Your task to perform on an android device: Open Google Image 0: 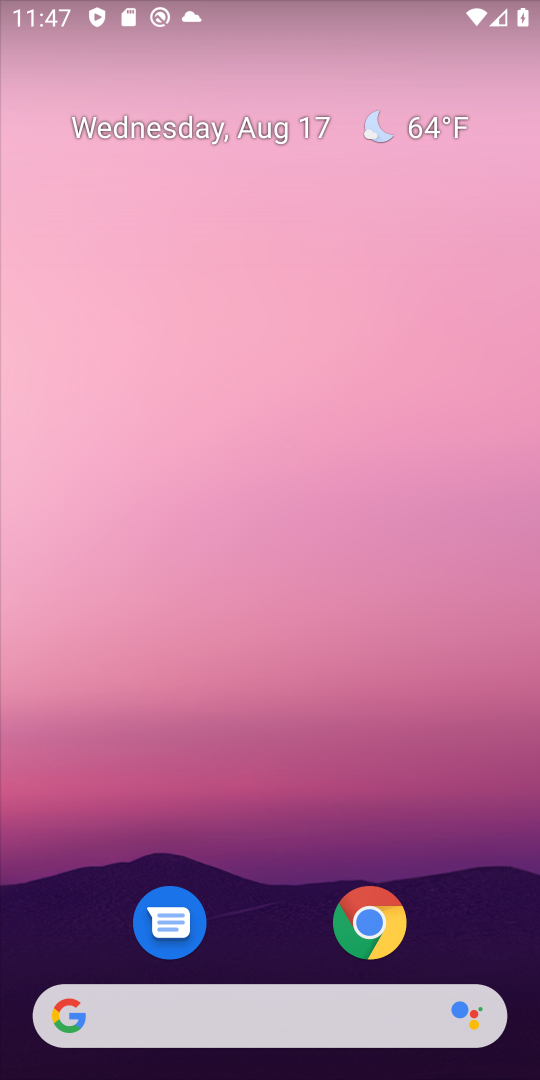
Step 0: click (60, 1010)
Your task to perform on an android device: Open Google Image 1: 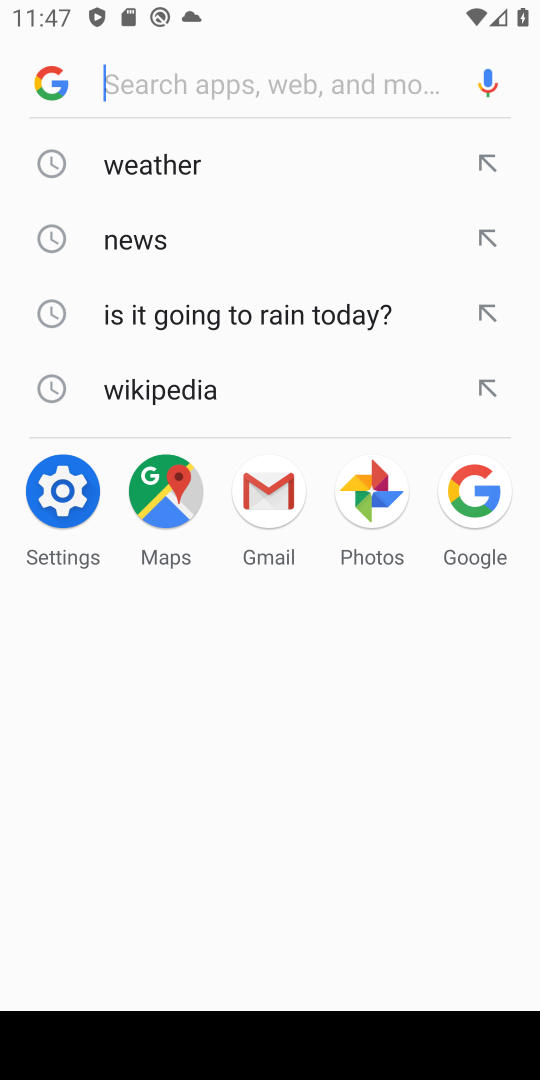
Step 1: click (53, 86)
Your task to perform on an android device: Open Google Image 2: 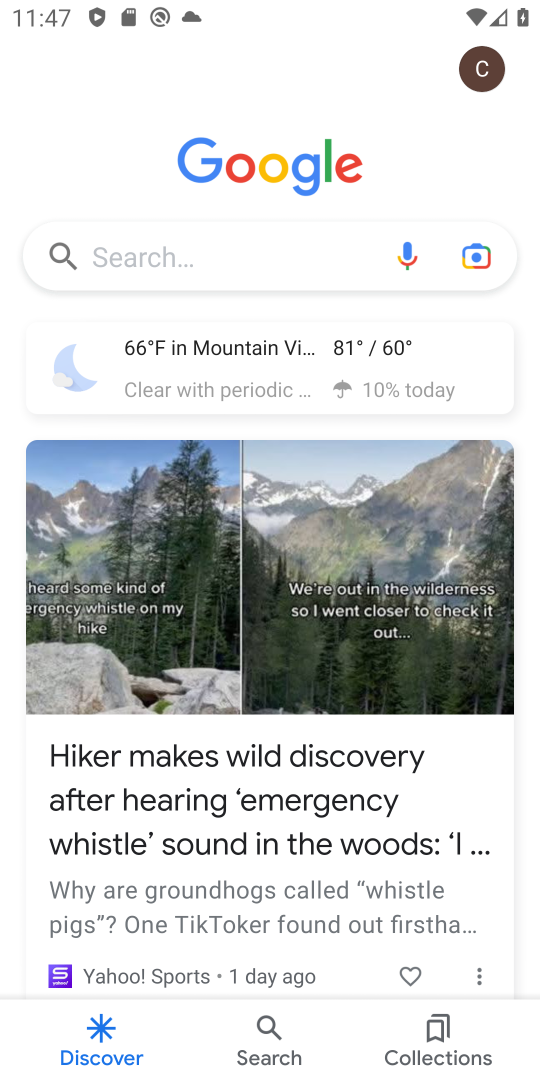
Step 2: task complete